Your task to perform on an android device: Add "logitech g pro" to the cart on bestbuy, then select checkout. Image 0: 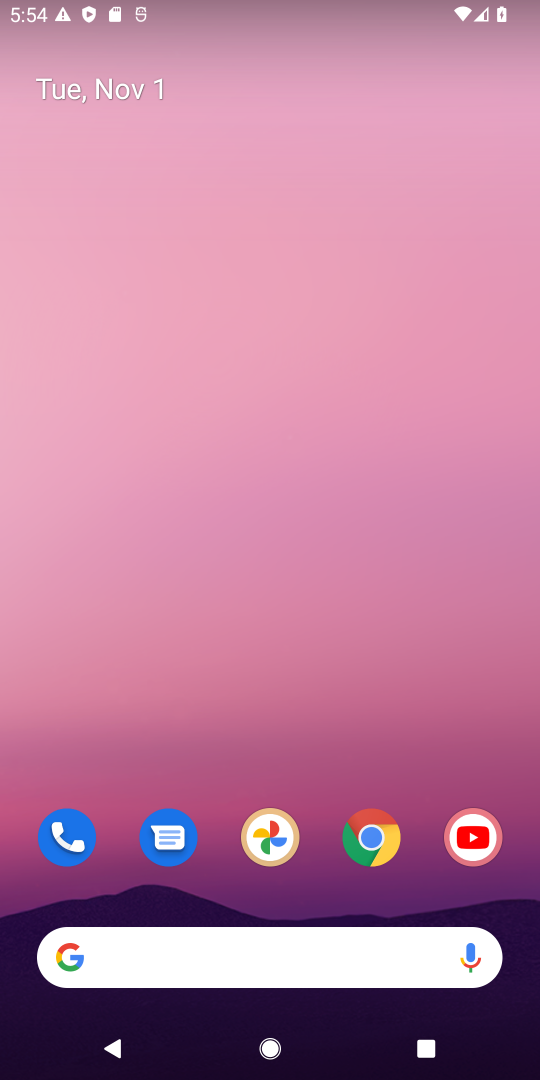
Step 0: press home button
Your task to perform on an android device: Add "logitech g pro" to the cart on bestbuy, then select checkout. Image 1: 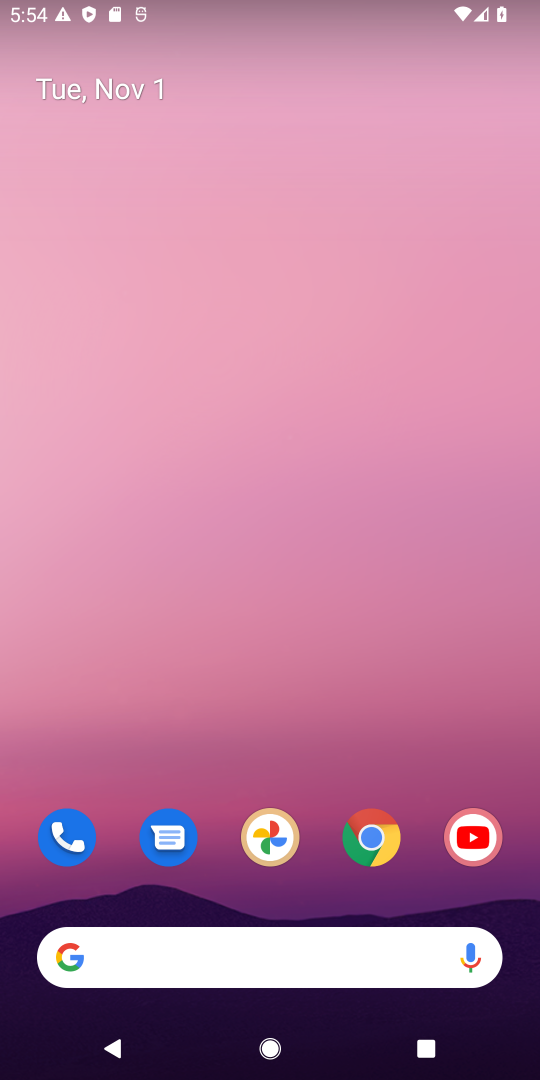
Step 1: drag from (363, 1023) to (391, 151)
Your task to perform on an android device: Add "logitech g pro" to the cart on bestbuy, then select checkout. Image 2: 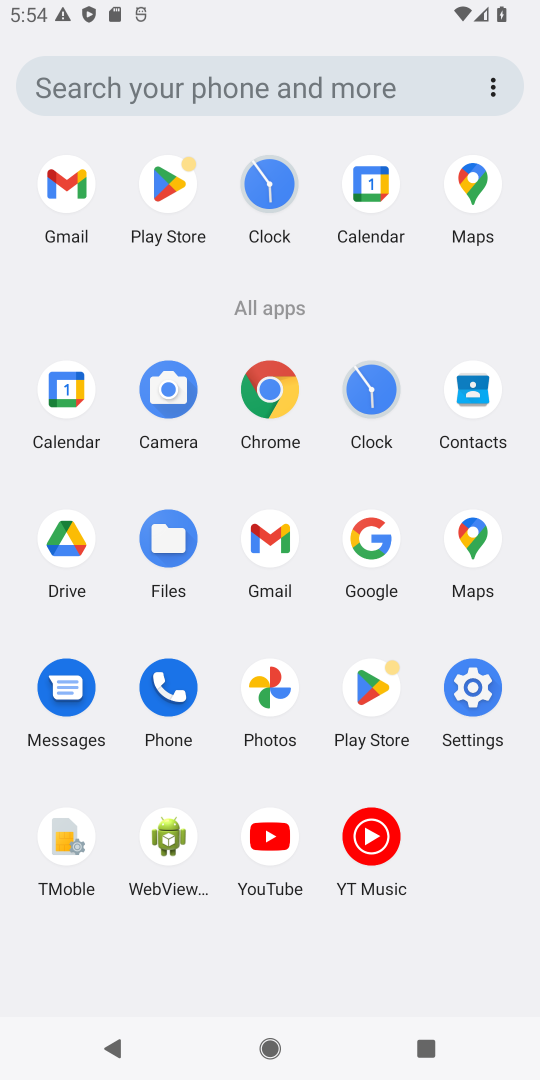
Step 2: click (243, 395)
Your task to perform on an android device: Add "logitech g pro" to the cart on bestbuy, then select checkout. Image 3: 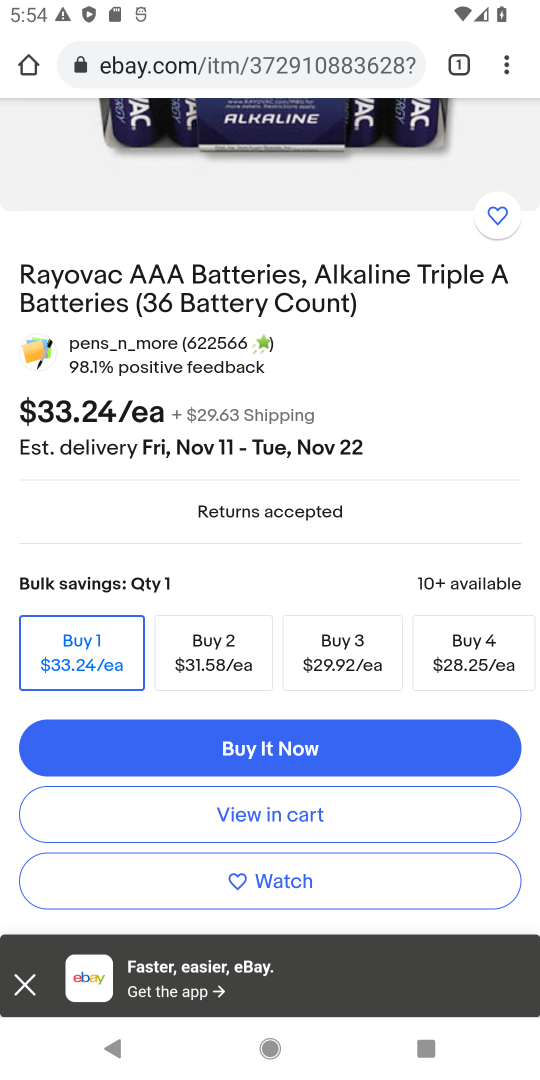
Step 3: drag from (309, 152) to (217, 779)
Your task to perform on an android device: Add "logitech g pro" to the cart on bestbuy, then select checkout. Image 4: 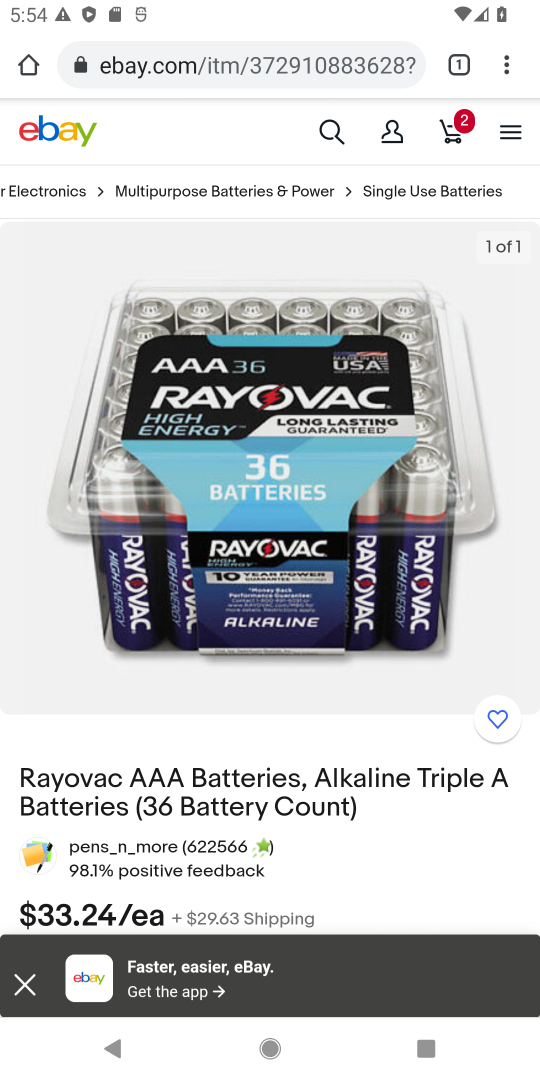
Step 4: click (190, 57)
Your task to perform on an android device: Add "logitech g pro" to the cart on bestbuy, then select checkout. Image 5: 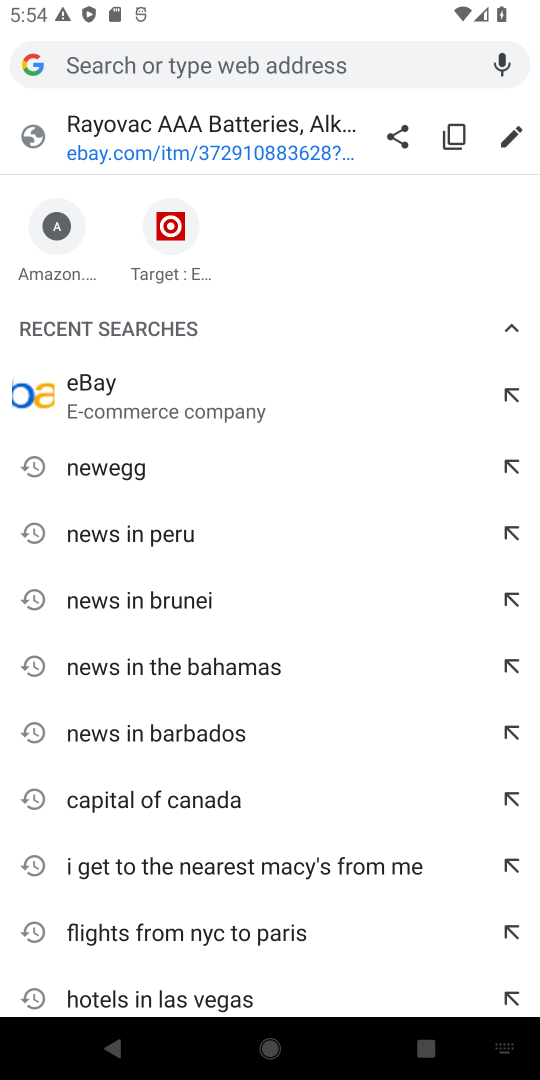
Step 5: type "bestbuy"
Your task to perform on an android device: Add "logitech g pro" to the cart on bestbuy, then select checkout. Image 6: 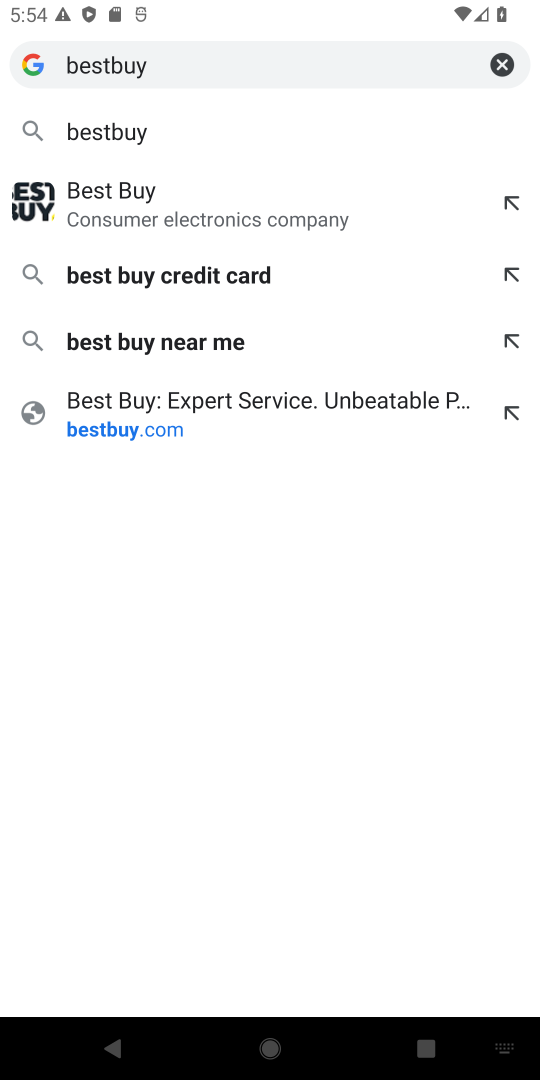
Step 6: click (95, 134)
Your task to perform on an android device: Add "logitech g pro" to the cart on bestbuy, then select checkout. Image 7: 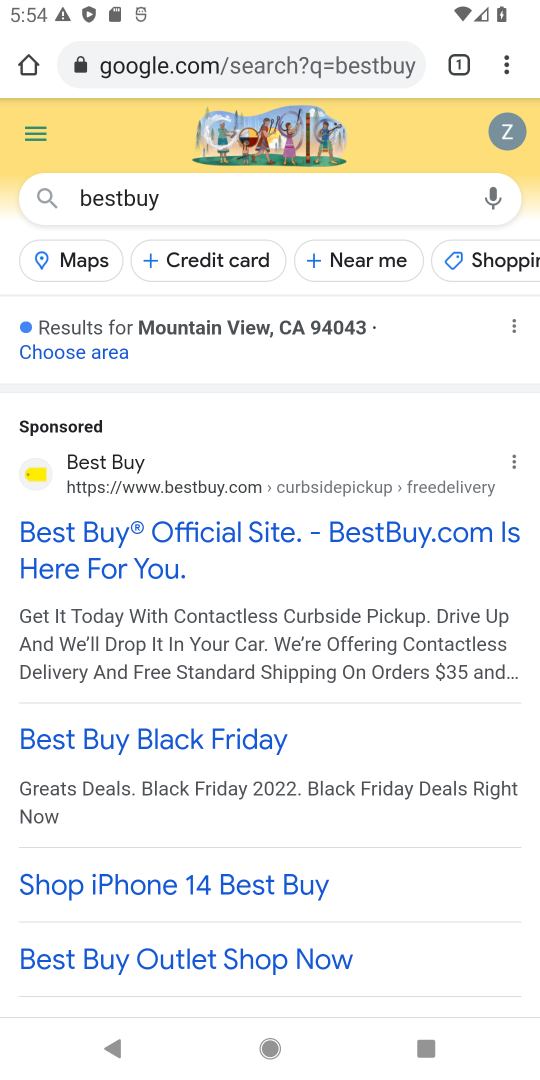
Step 7: click (182, 193)
Your task to perform on an android device: Add "logitech g pro" to the cart on bestbuy, then select checkout. Image 8: 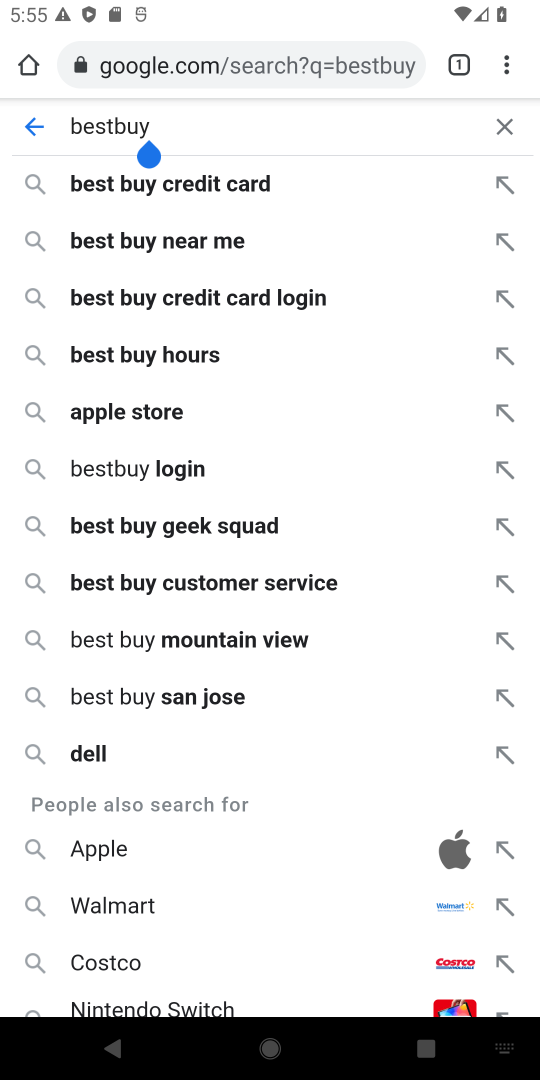
Step 8: click (265, 58)
Your task to perform on an android device: Add "logitech g pro" to the cart on bestbuy, then select checkout. Image 9: 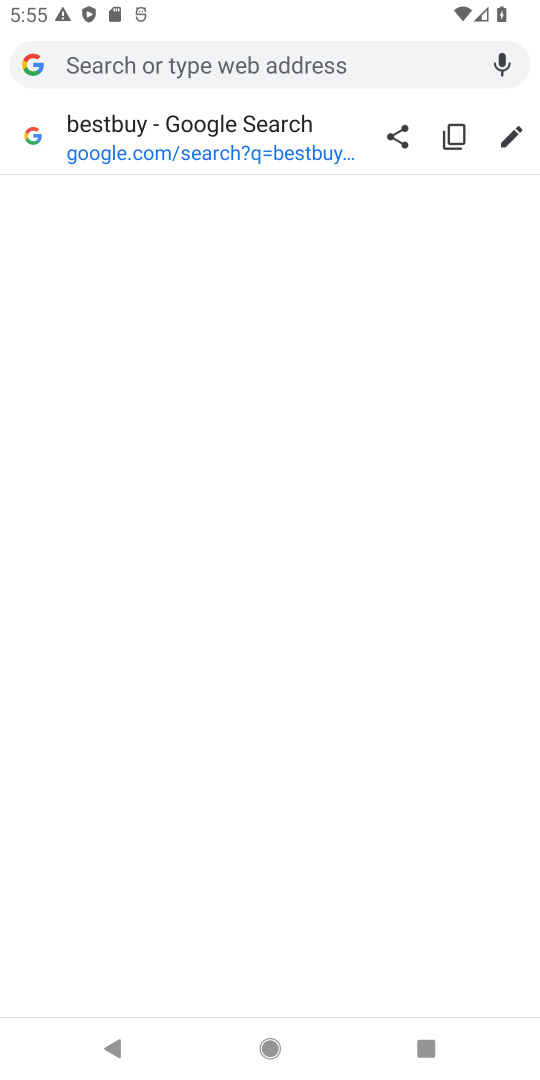
Step 9: type "bestbuy"
Your task to perform on an android device: Add "logitech g pro" to the cart on bestbuy, then select checkout. Image 10: 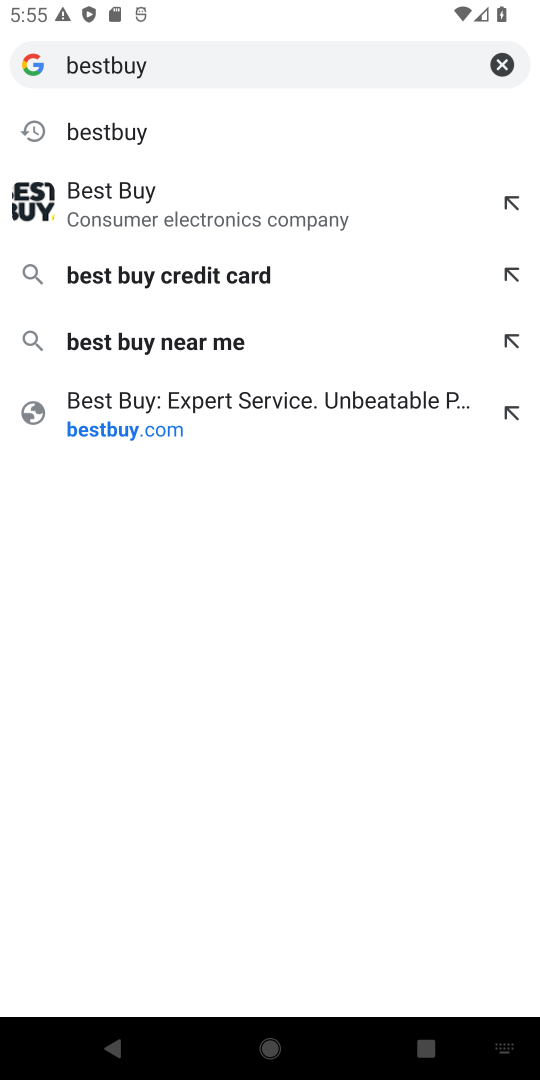
Step 10: click (98, 426)
Your task to perform on an android device: Add "logitech g pro" to the cart on bestbuy, then select checkout. Image 11: 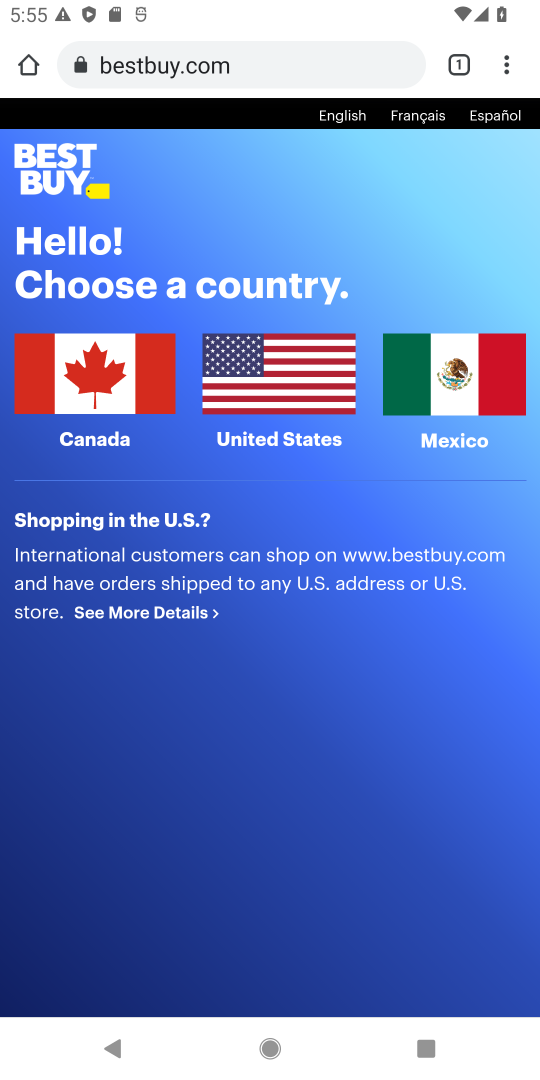
Step 11: drag from (282, 753) to (378, 310)
Your task to perform on an android device: Add "logitech g pro" to the cart on bestbuy, then select checkout. Image 12: 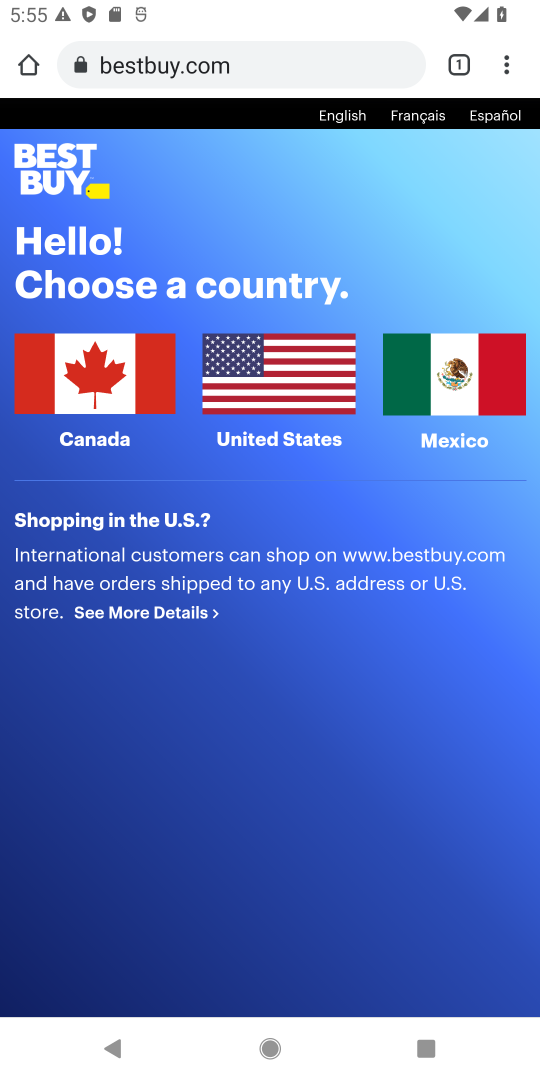
Step 12: click (288, 369)
Your task to perform on an android device: Add "logitech g pro" to the cart on bestbuy, then select checkout. Image 13: 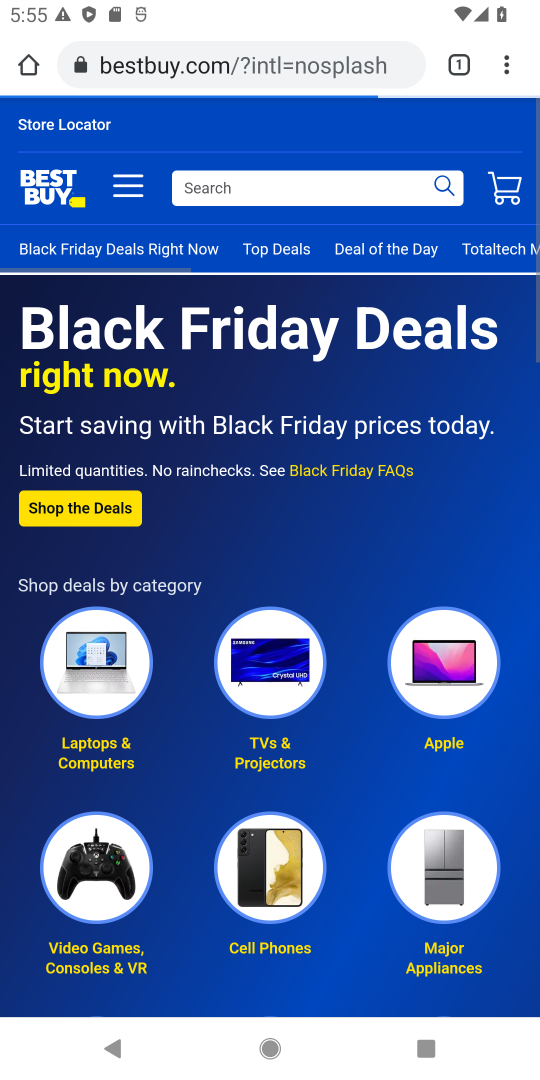
Step 13: click (266, 391)
Your task to perform on an android device: Add "logitech g pro" to the cart on bestbuy, then select checkout. Image 14: 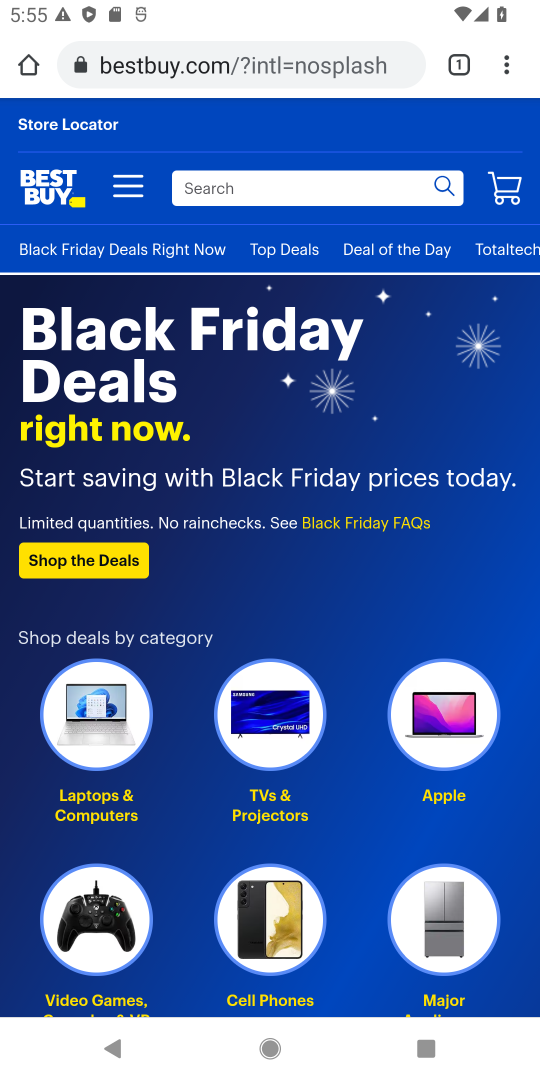
Step 14: click (287, 184)
Your task to perform on an android device: Add "logitech g pro" to the cart on bestbuy, then select checkout. Image 15: 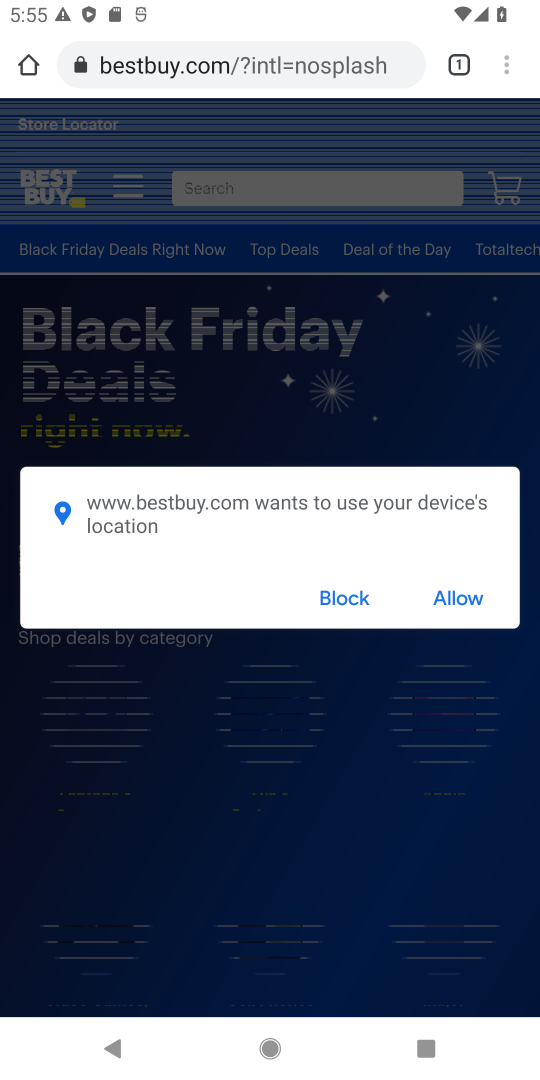
Step 15: click (446, 604)
Your task to perform on an android device: Add "logitech g pro" to the cart on bestbuy, then select checkout. Image 16: 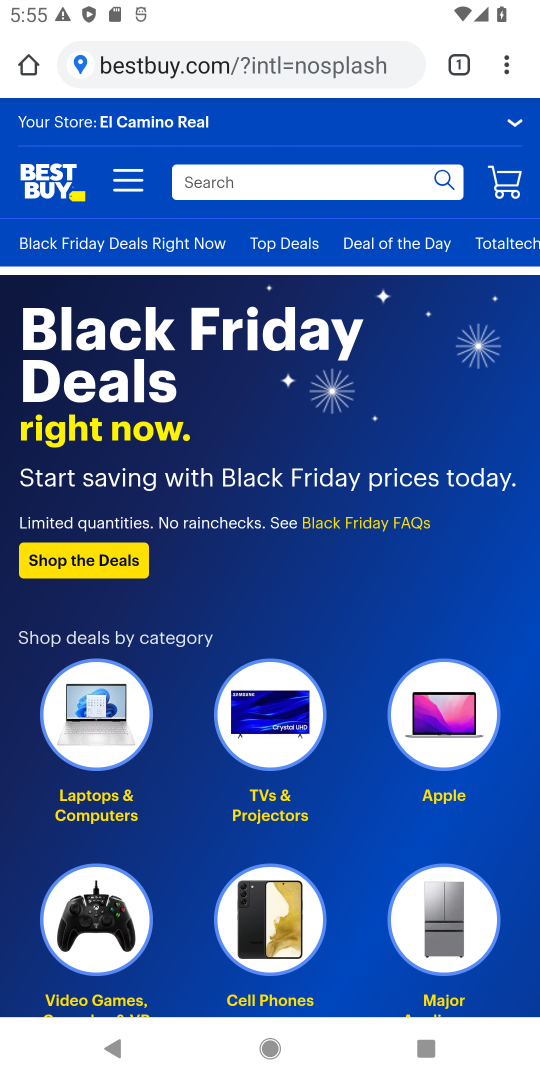
Step 16: click (276, 181)
Your task to perform on an android device: Add "logitech g pro" to the cart on bestbuy, then select checkout. Image 17: 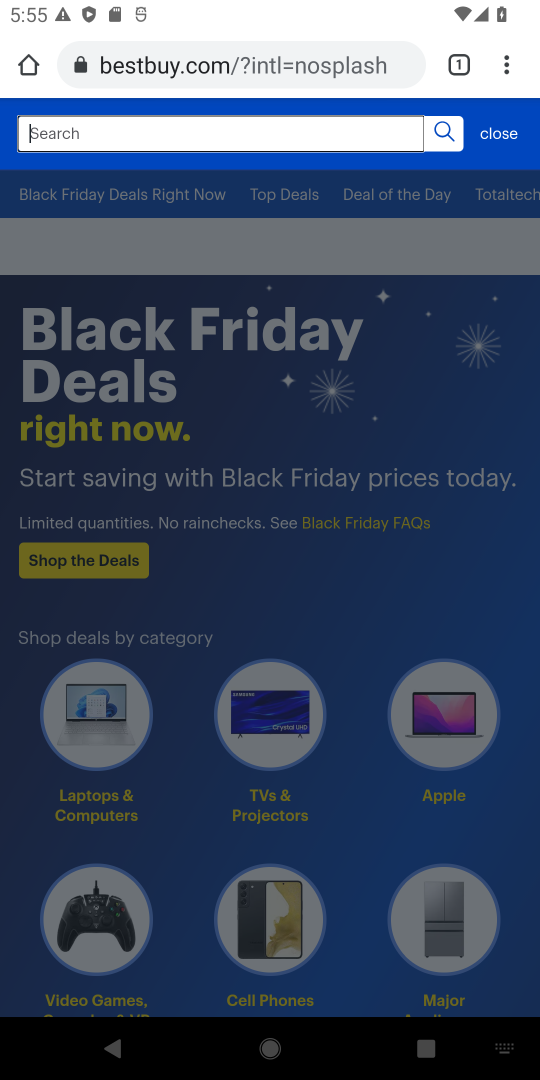
Step 17: type "logitech g pro"
Your task to perform on an android device: Add "logitech g pro" to the cart on bestbuy, then select checkout. Image 18: 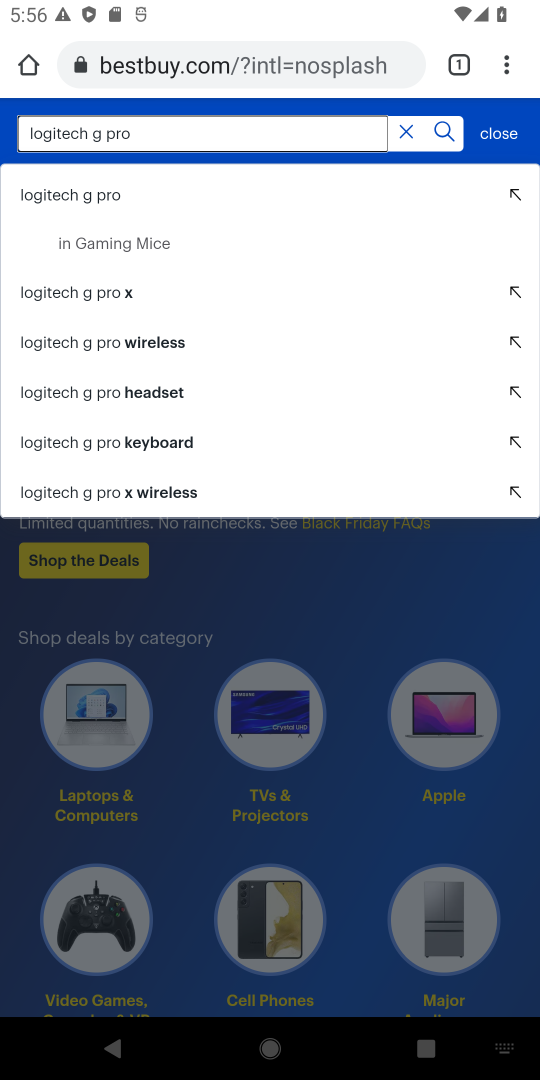
Step 18: click (86, 196)
Your task to perform on an android device: Add "logitech g pro" to the cart on bestbuy, then select checkout. Image 19: 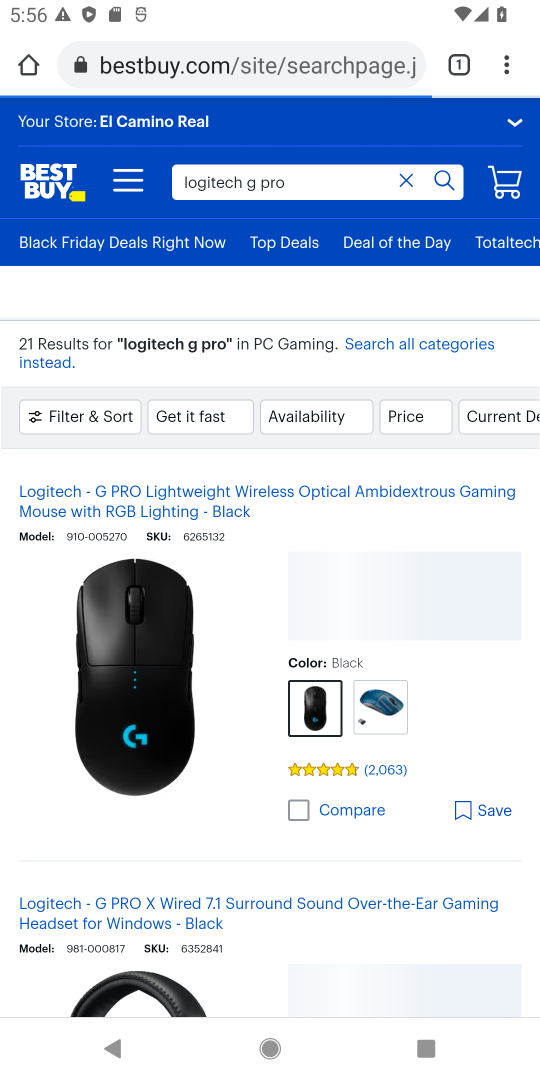
Step 19: click (77, 596)
Your task to perform on an android device: Add "logitech g pro" to the cart on bestbuy, then select checkout. Image 20: 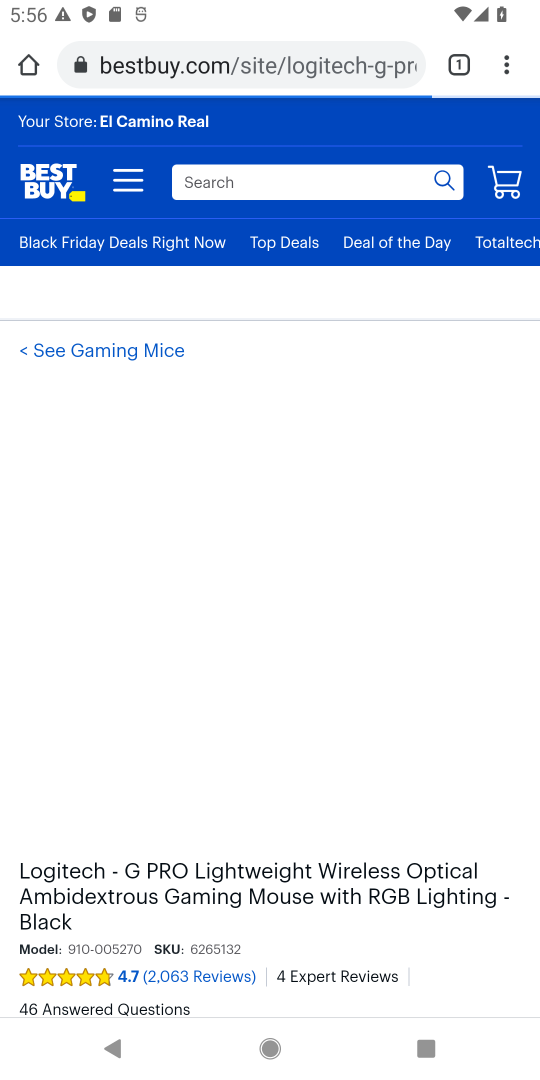
Step 20: drag from (364, 831) to (416, 476)
Your task to perform on an android device: Add "logitech g pro" to the cart on bestbuy, then select checkout. Image 21: 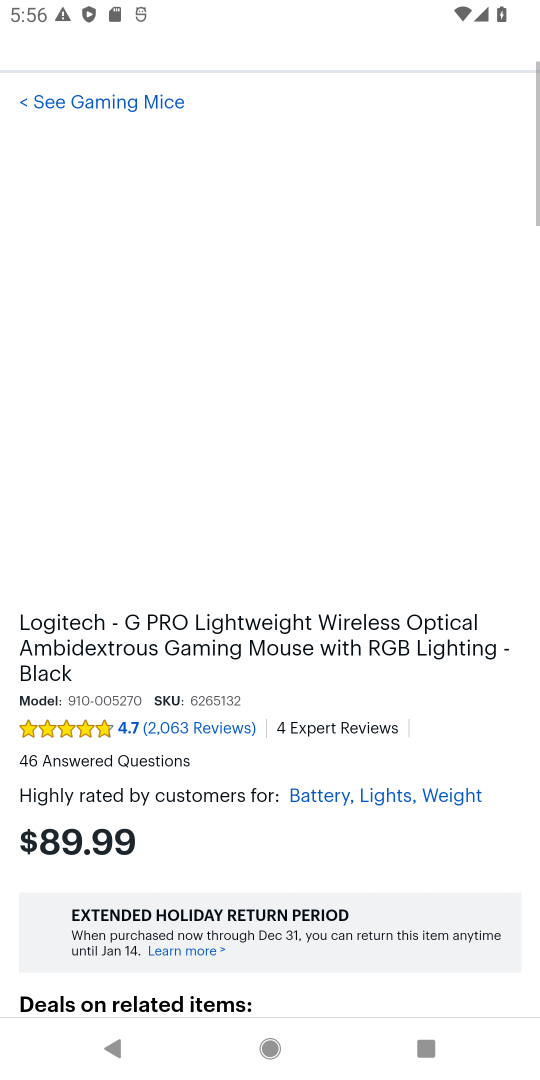
Step 21: click (422, 414)
Your task to perform on an android device: Add "logitech g pro" to the cart on bestbuy, then select checkout. Image 22: 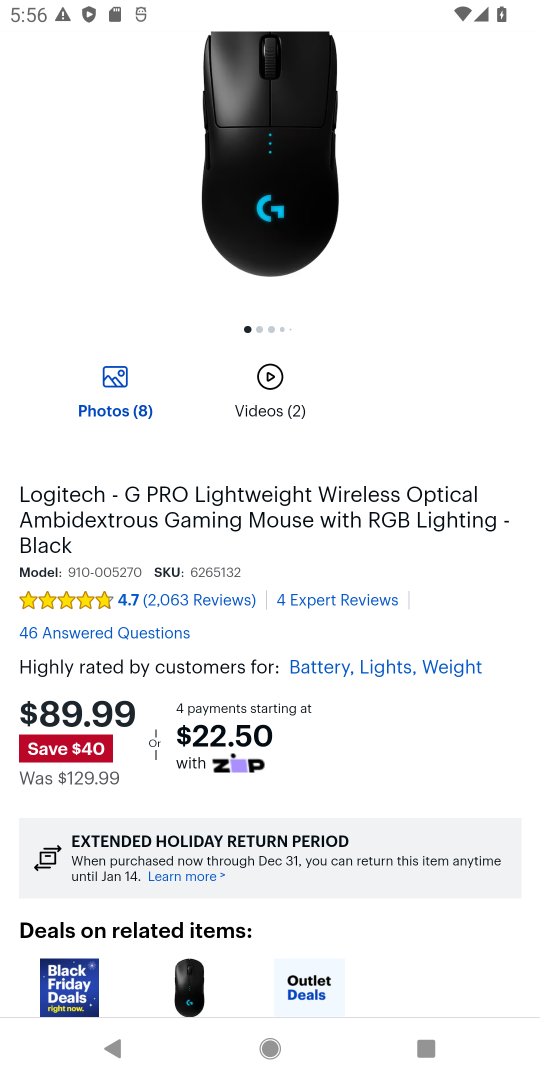
Step 22: drag from (369, 798) to (433, 284)
Your task to perform on an android device: Add "logitech g pro" to the cart on bestbuy, then select checkout. Image 23: 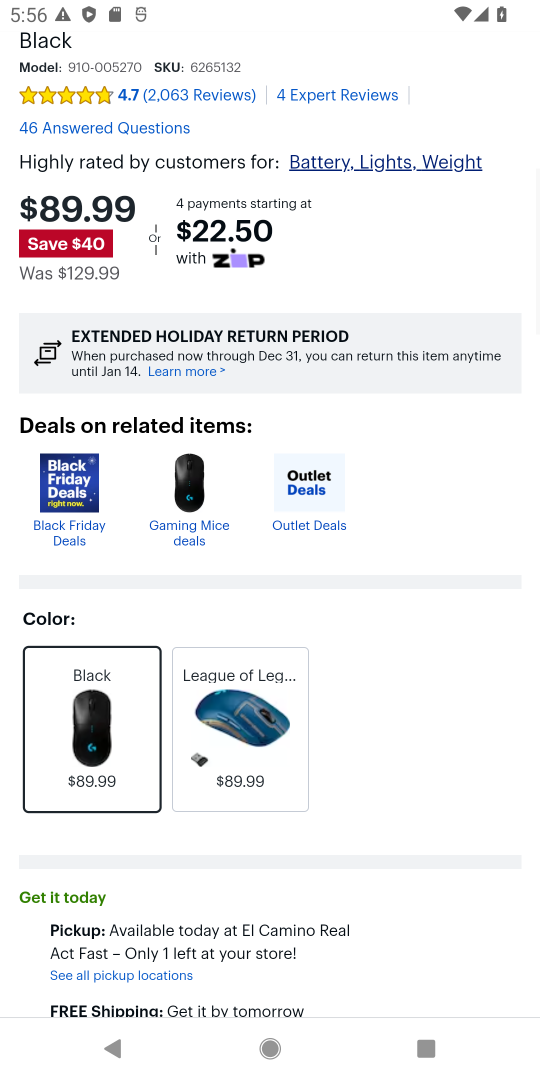
Step 23: drag from (370, 842) to (486, 234)
Your task to perform on an android device: Add "logitech g pro" to the cart on bestbuy, then select checkout. Image 24: 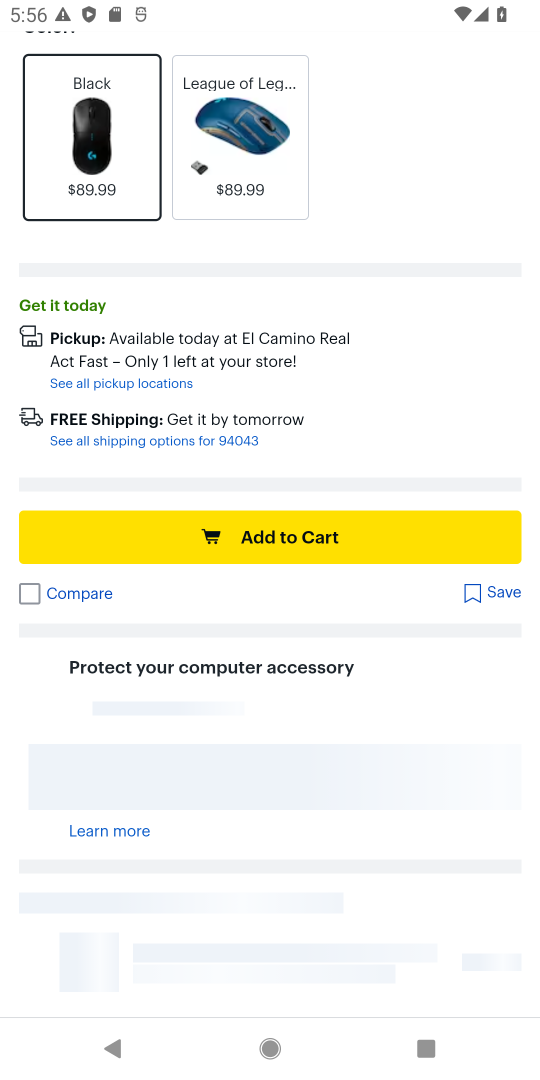
Step 24: click (292, 532)
Your task to perform on an android device: Add "logitech g pro" to the cart on bestbuy, then select checkout. Image 25: 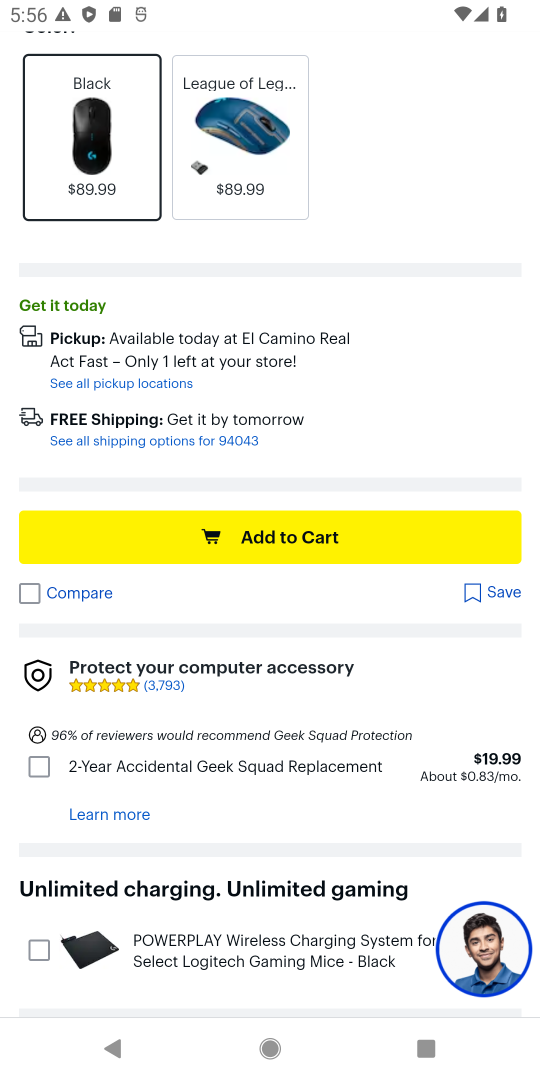
Step 25: task complete